Your task to perform on an android device: turn on data saver in the chrome app Image 0: 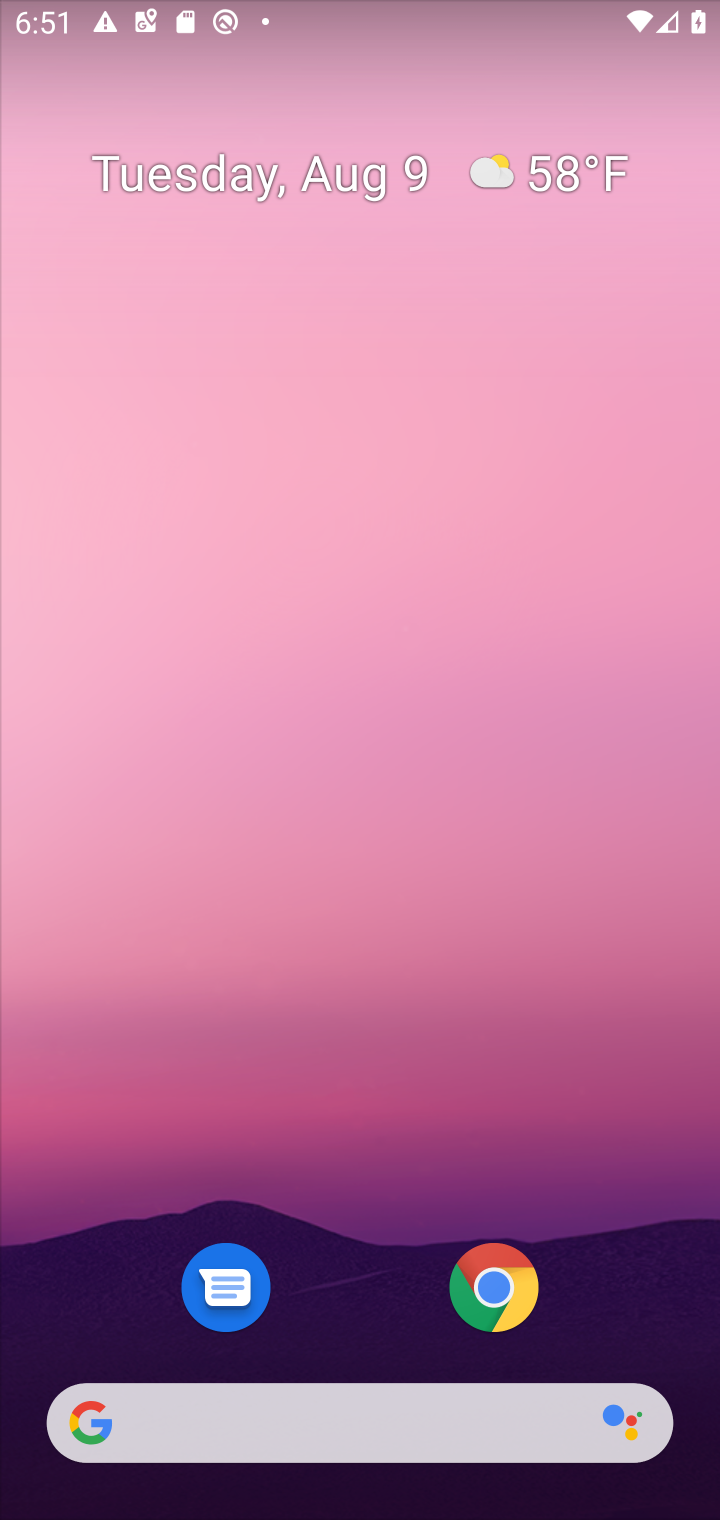
Step 0: drag from (430, 1142) to (322, 705)
Your task to perform on an android device: turn on data saver in the chrome app Image 1: 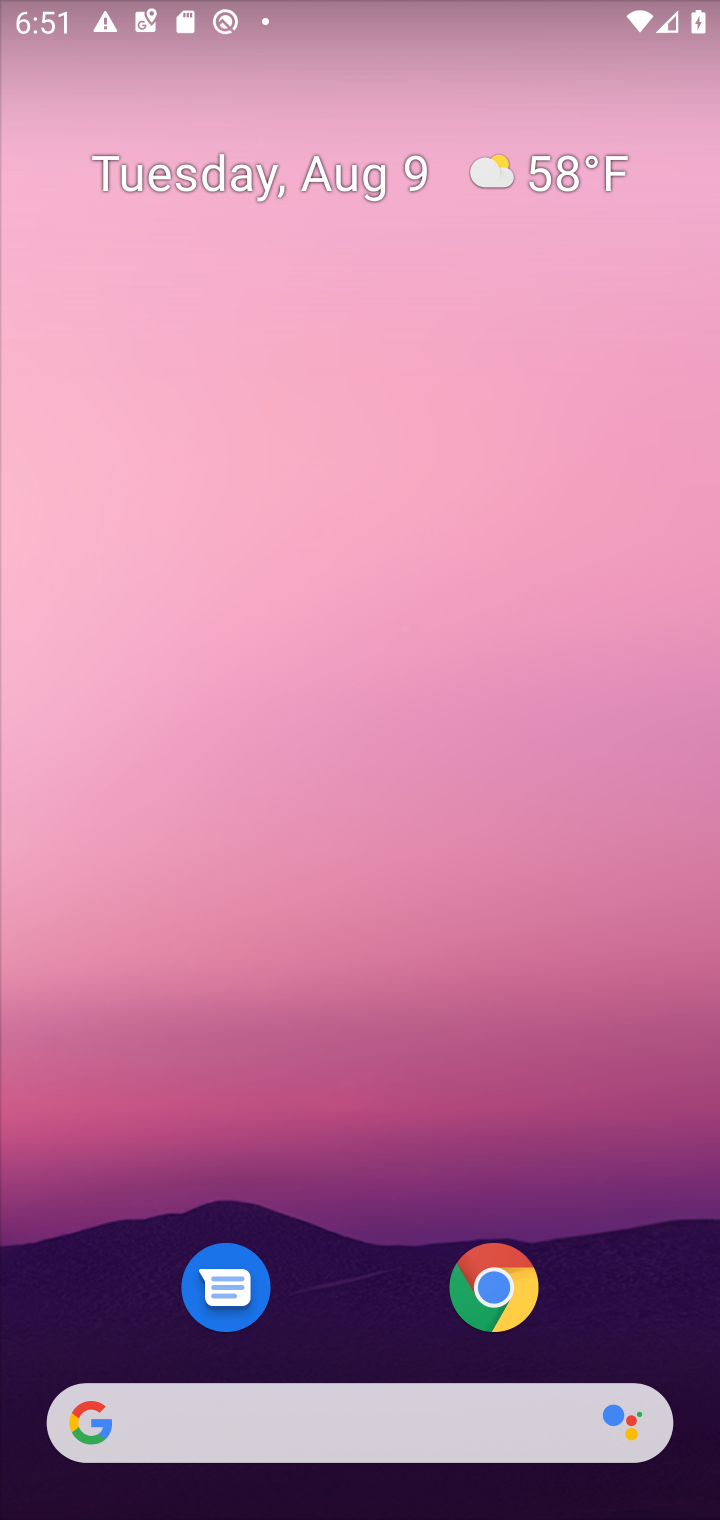
Step 1: drag from (513, 610) to (560, 370)
Your task to perform on an android device: turn on data saver in the chrome app Image 2: 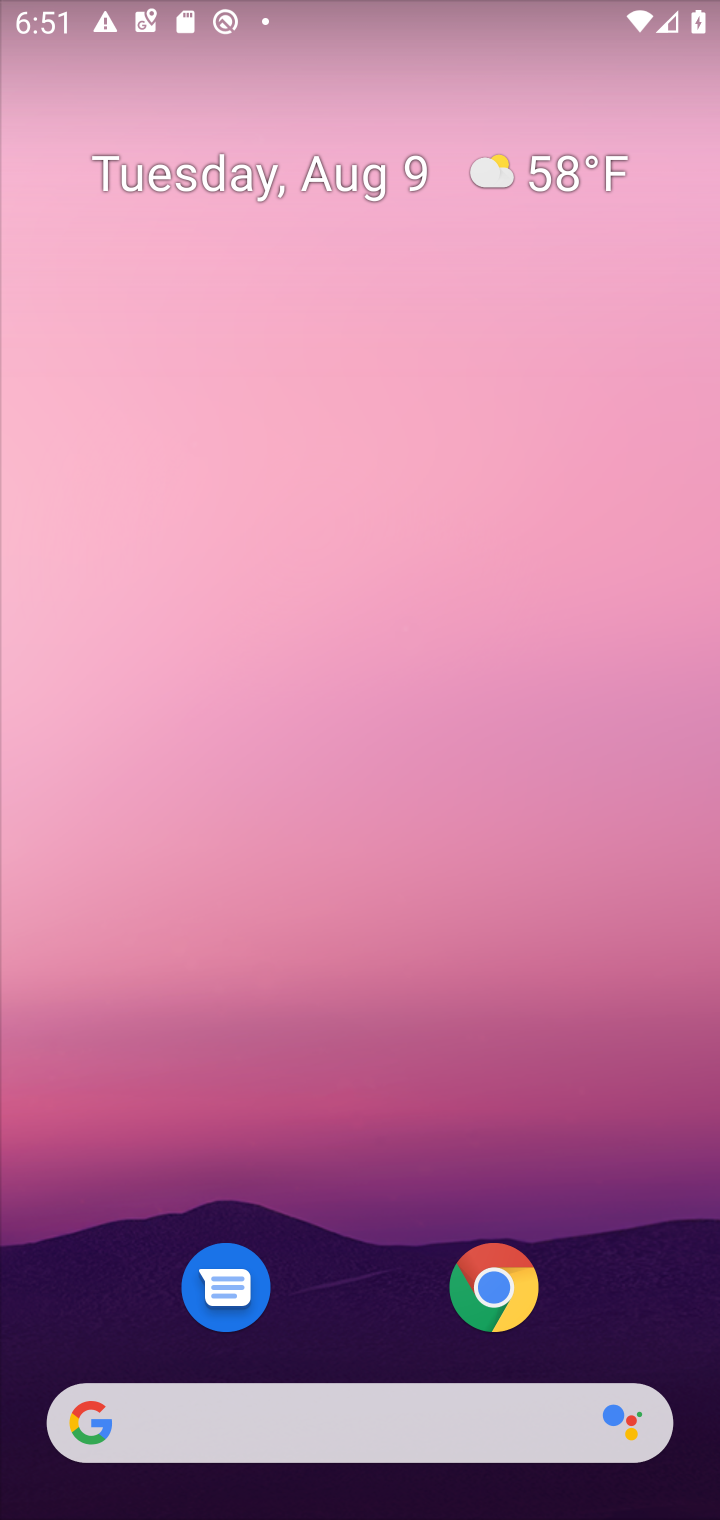
Step 2: drag from (356, 1108) to (401, 152)
Your task to perform on an android device: turn on data saver in the chrome app Image 3: 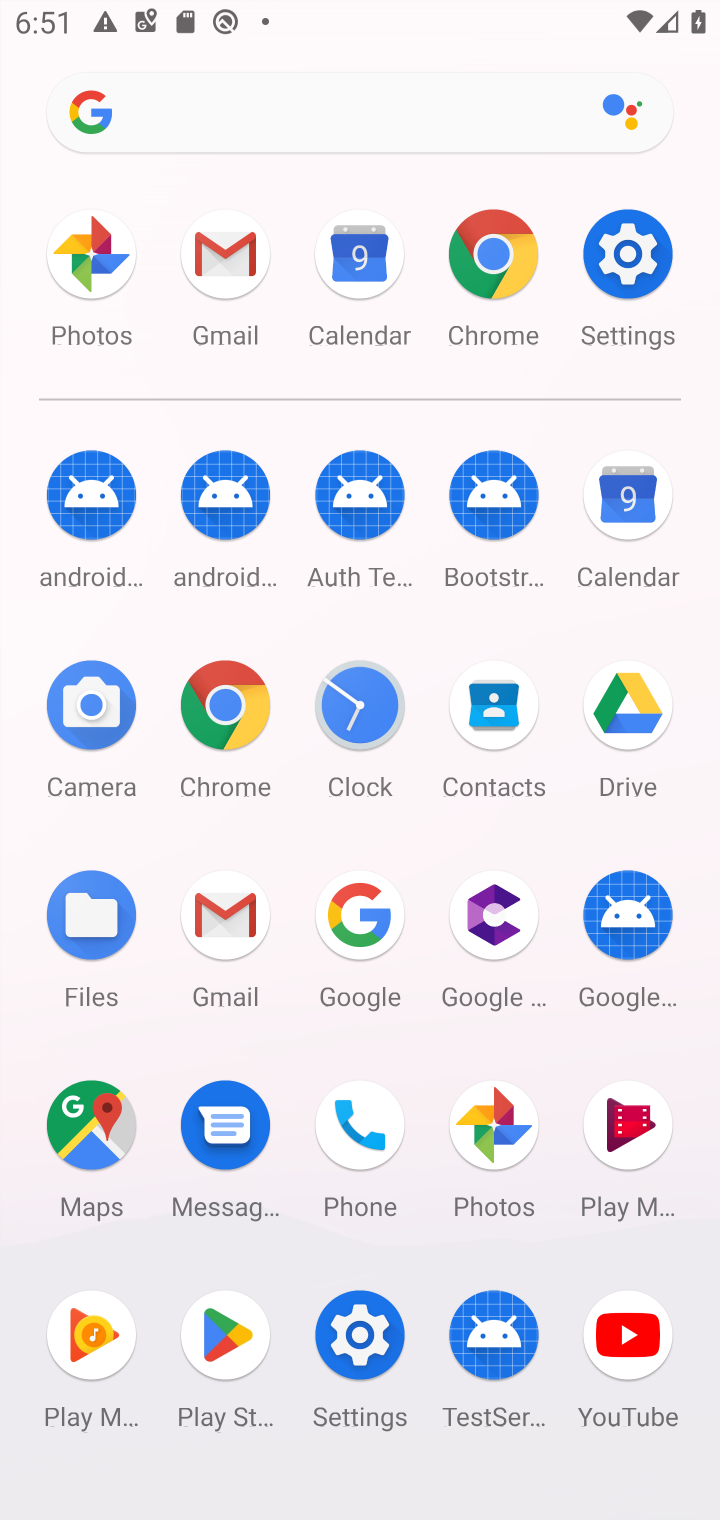
Step 3: click (518, 270)
Your task to perform on an android device: turn on data saver in the chrome app Image 4: 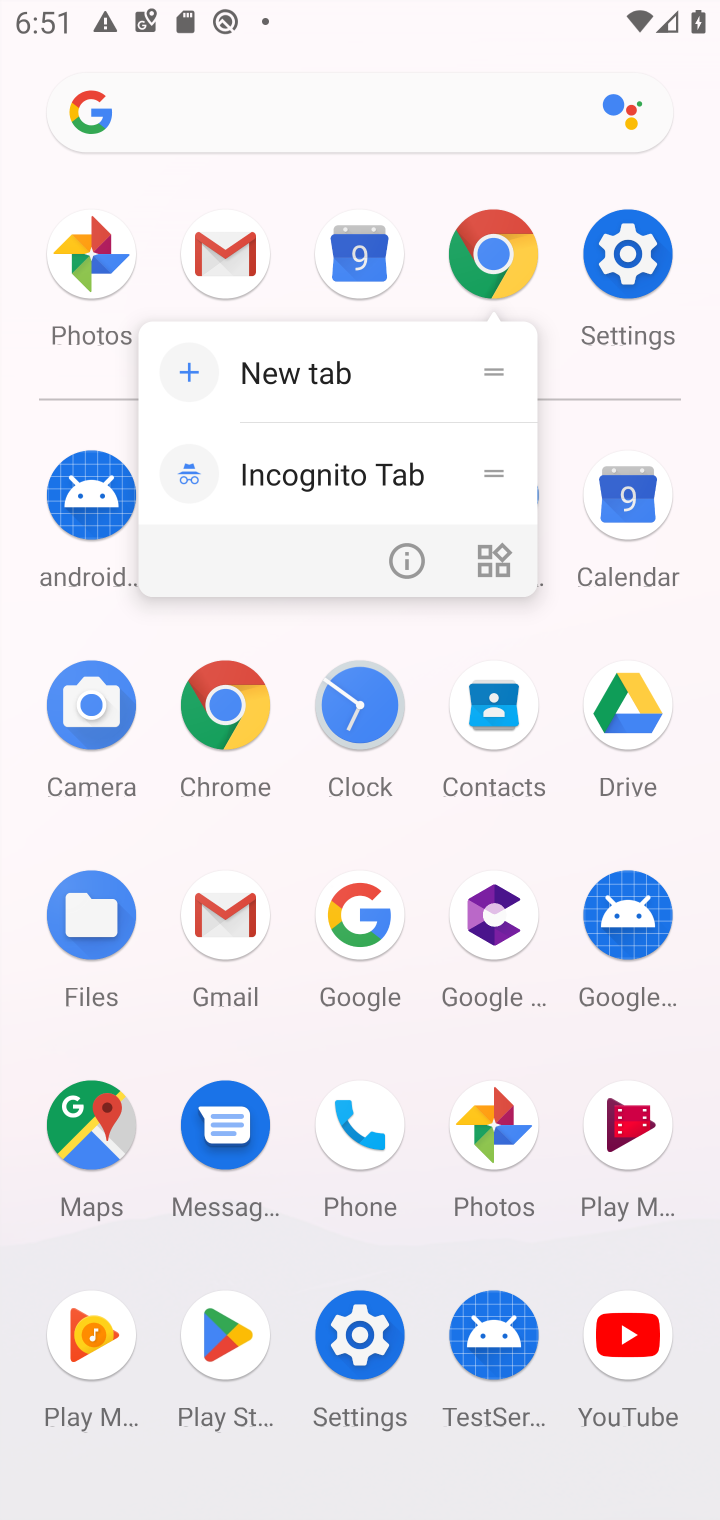
Step 4: click (310, 362)
Your task to perform on an android device: turn on data saver in the chrome app Image 5: 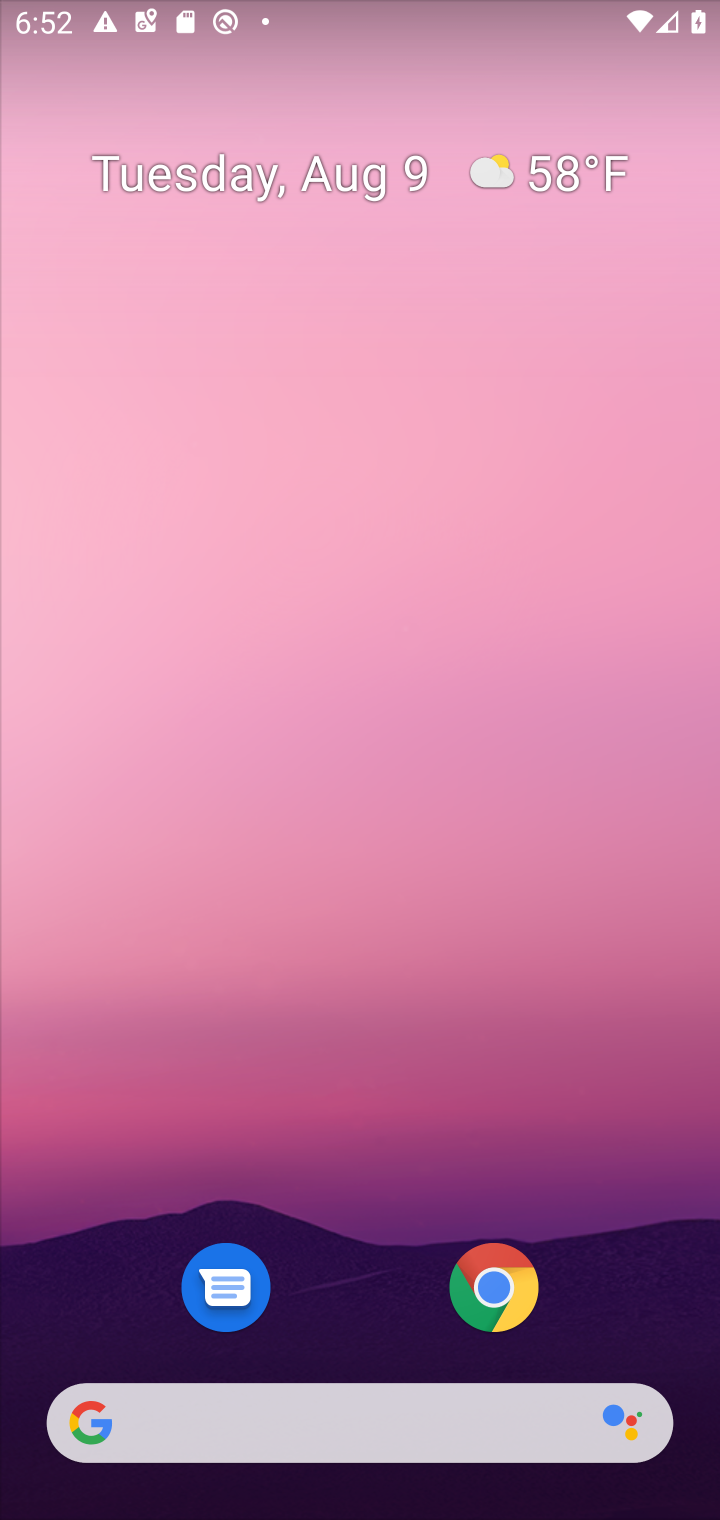
Step 5: click (523, 1289)
Your task to perform on an android device: turn on data saver in the chrome app Image 6: 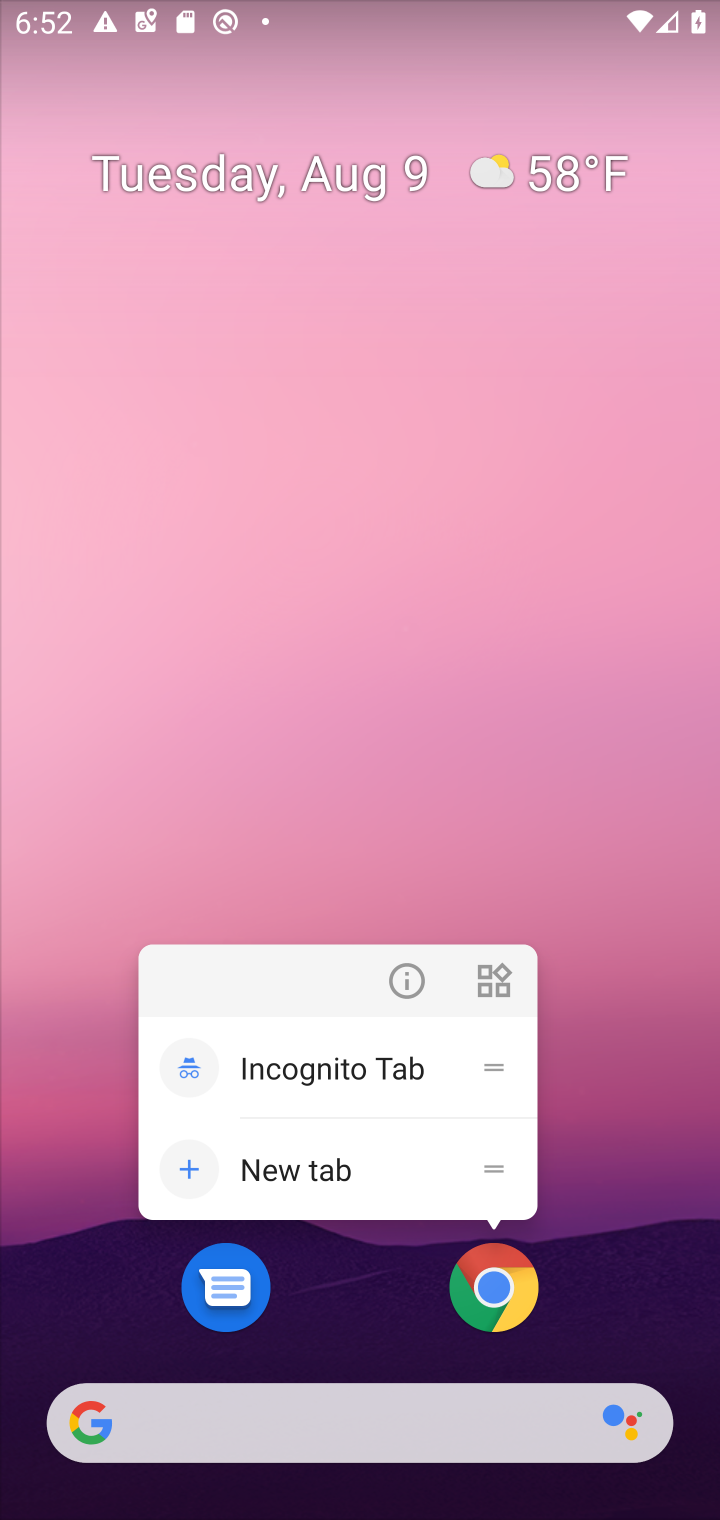
Step 6: click (463, 1268)
Your task to perform on an android device: turn on data saver in the chrome app Image 7: 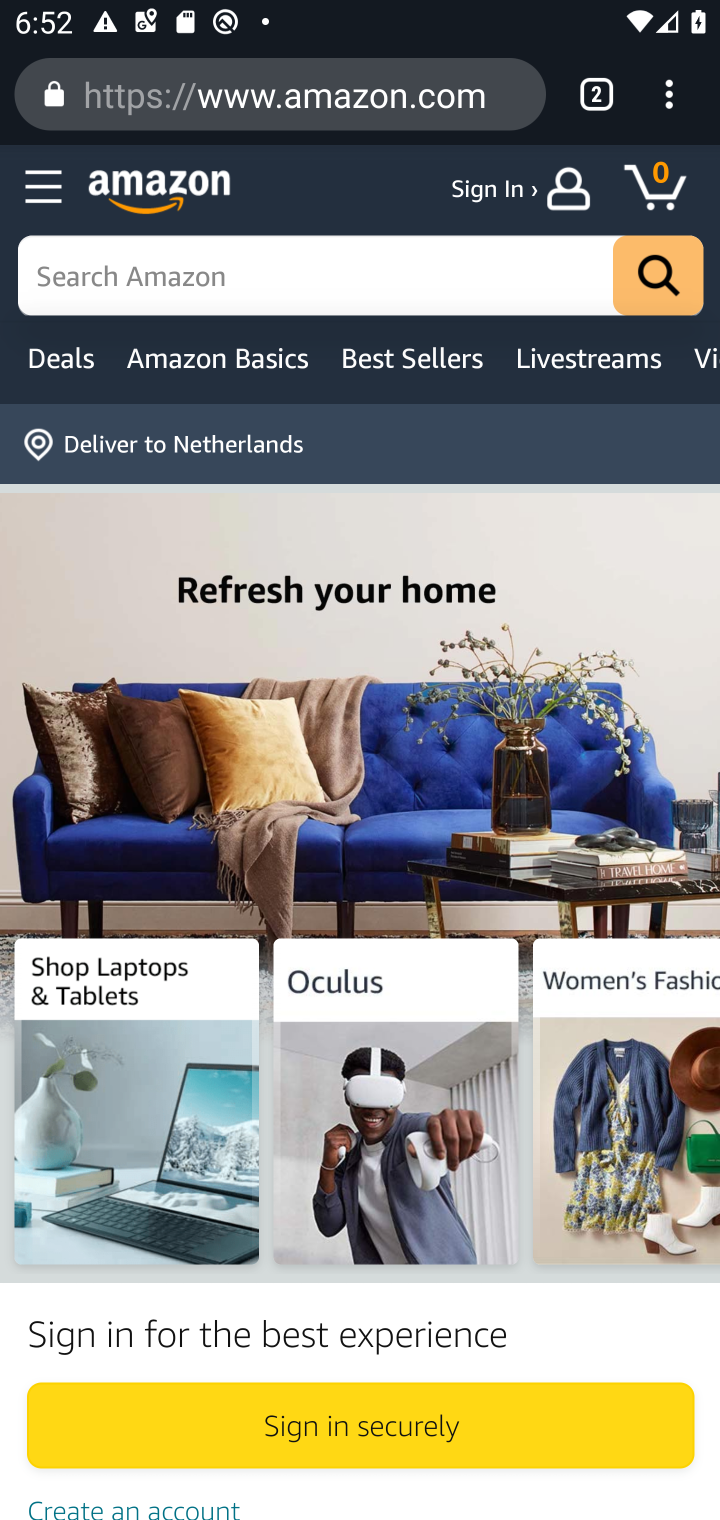
Step 7: task complete